Your task to perform on an android device: change the upload size in google photos Image 0: 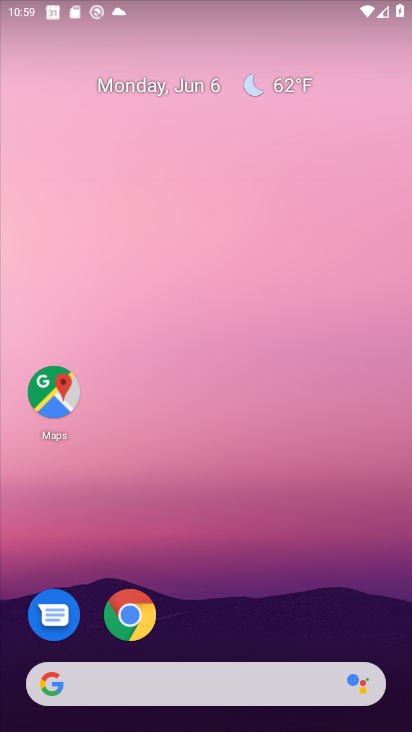
Step 0: drag from (261, 517) to (203, 181)
Your task to perform on an android device: change the upload size in google photos Image 1: 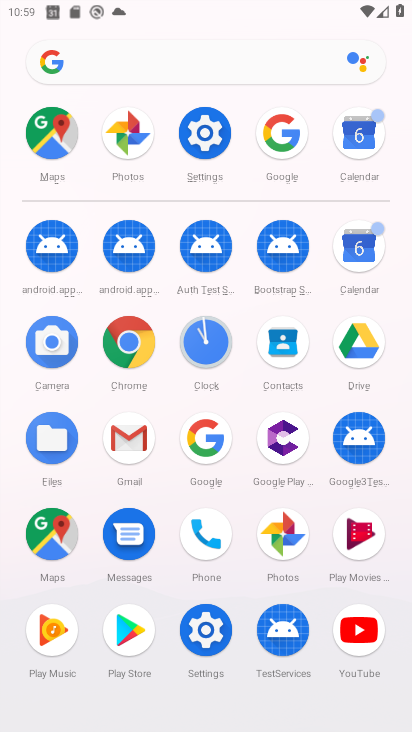
Step 1: click (270, 527)
Your task to perform on an android device: change the upload size in google photos Image 2: 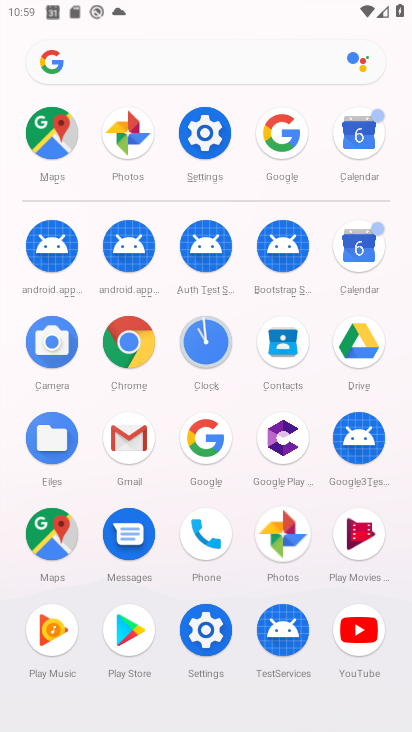
Step 2: click (271, 528)
Your task to perform on an android device: change the upload size in google photos Image 3: 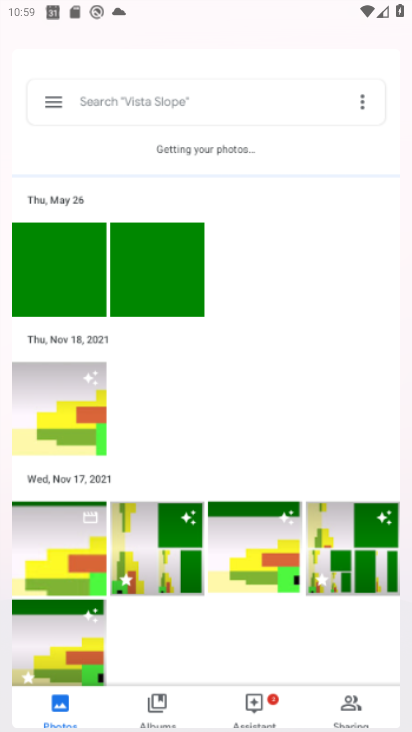
Step 3: click (271, 528)
Your task to perform on an android device: change the upload size in google photos Image 4: 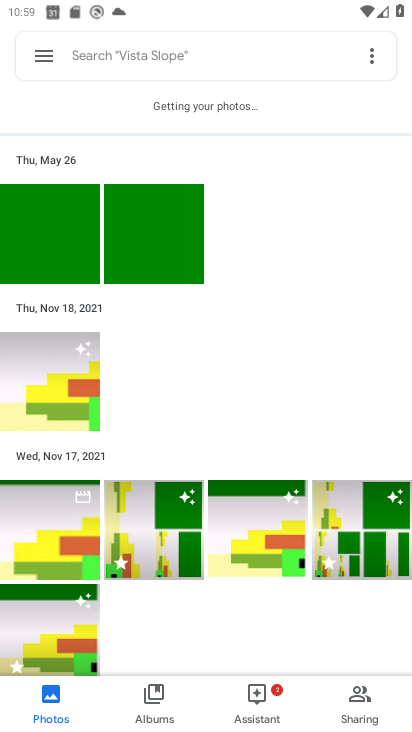
Step 4: click (44, 62)
Your task to perform on an android device: change the upload size in google photos Image 5: 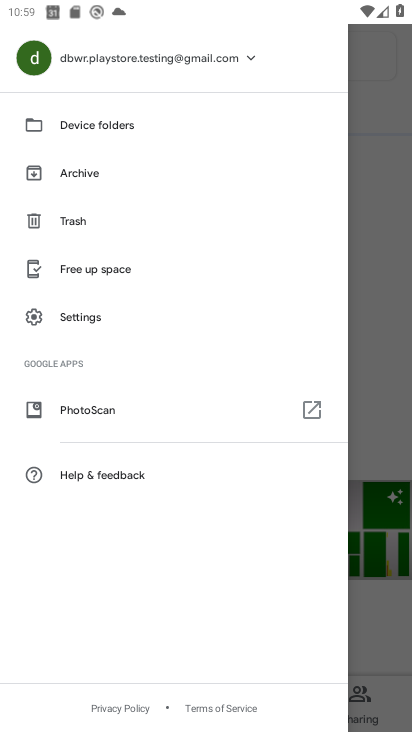
Step 5: click (70, 320)
Your task to perform on an android device: change the upload size in google photos Image 6: 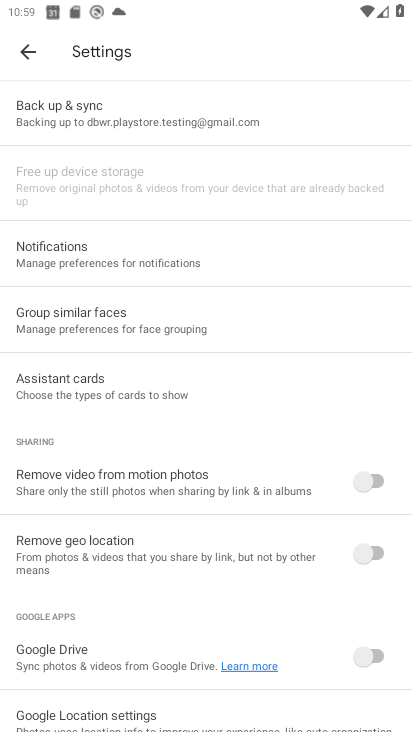
Step 6: click (47, 123)
Your task to perform on an android device: change the upload size in google photos Image 7: 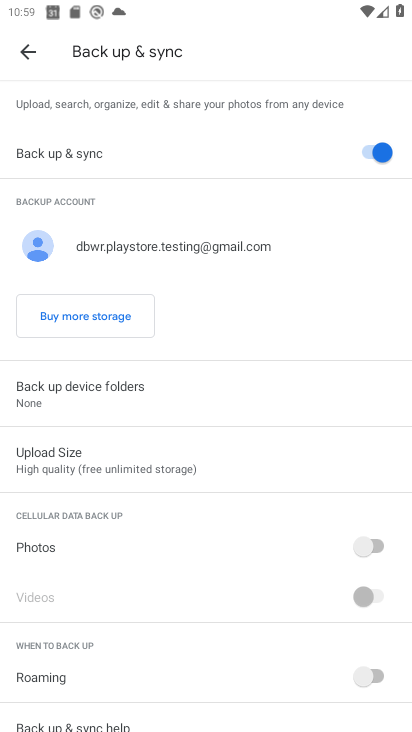
Step 7: click (56, 465)
Your task to perform on an android device: change the upload size in google photos Image 8: 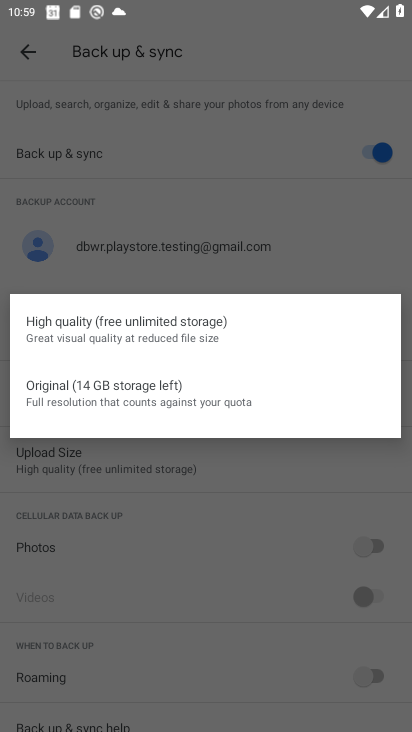
Step 8: click (83, 393)
Your task to perform on an android device: change the upload size in google photos Image 9: 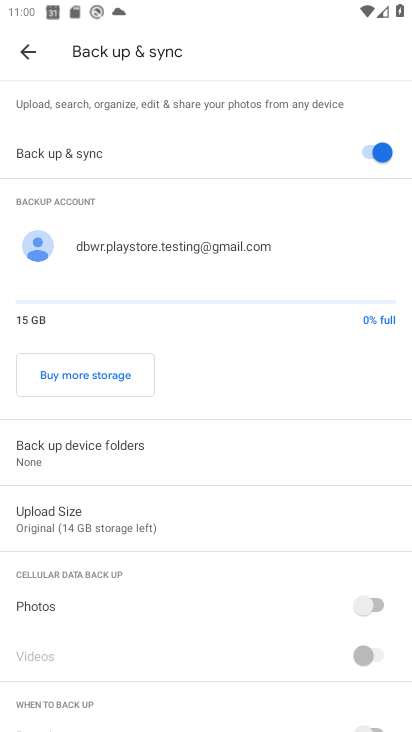
Step 9: task complete